Your task to perform on an android device: toggle pop-ups in chrome Image 0: 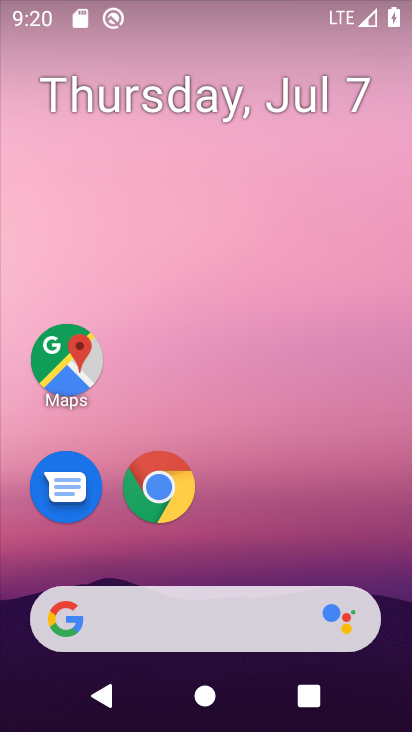
Step 0: drag from (369, 527) to (389, 184)
Your task to perform on an android device: toggle pop-ups in chrome Image 1: 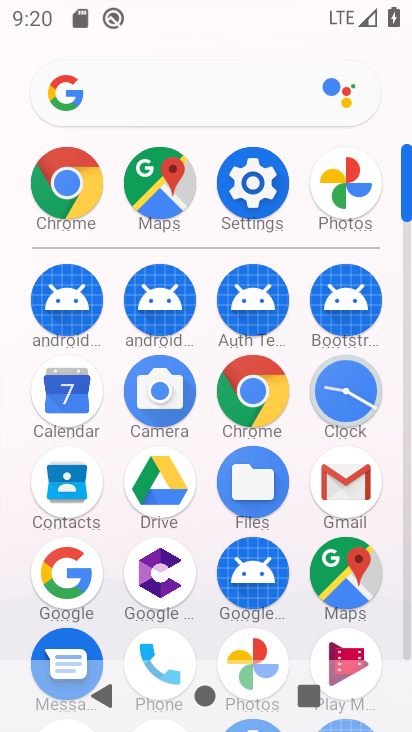
Step 1: click (270, 388)
Your task to perform on an android device: toggle pop-ups in chrome Image 2: 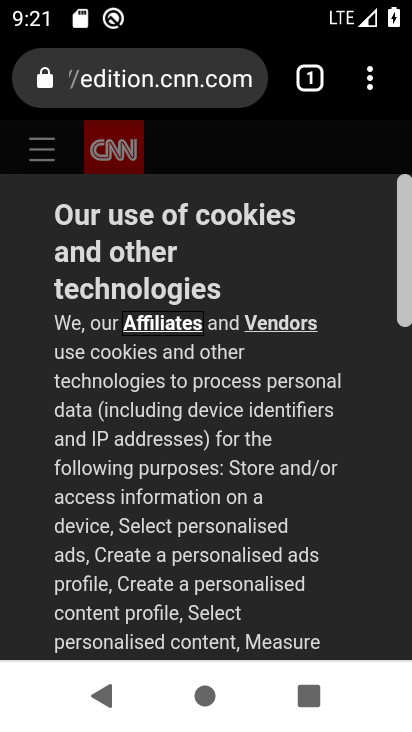
Step 2: click (370, 92)
Your task to perform on an android device: toggle pop-ups in chrome Image 3: 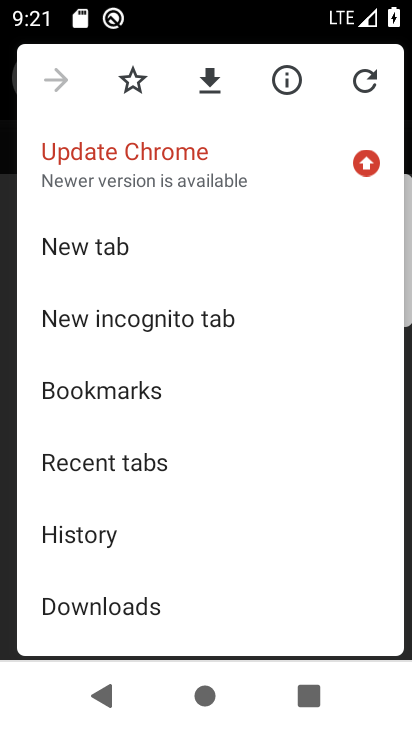
Step 3: drag from (322, 474) to (331, 407)
Your task to perform on an android device: toggle pop-ups in chrome Image 4: 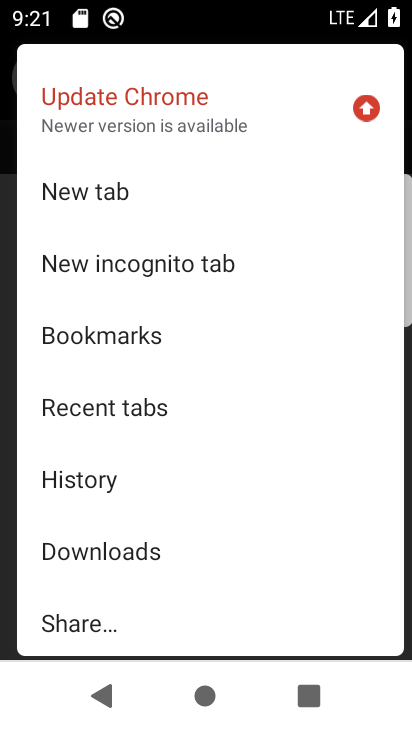
Step 4: drag from (308, 567) to (319, 481)
Your task to perform on an android device: toggle pop-ups in chrome Image 5: 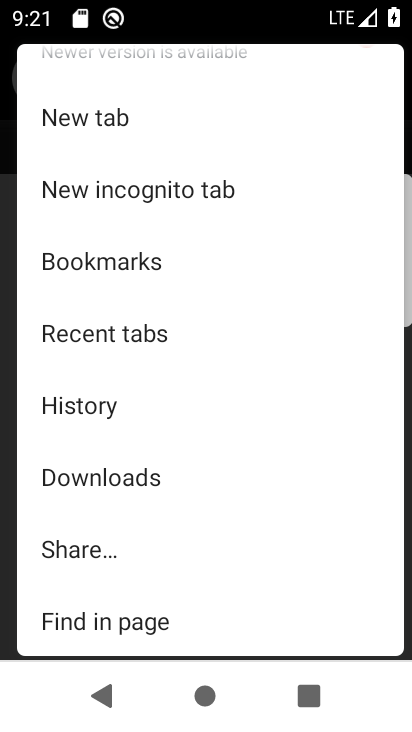
Step 5: drag from (326, 546) to (325, 439)
Your task to perform on an android device: toggle pop-ups in chrome Image 6: 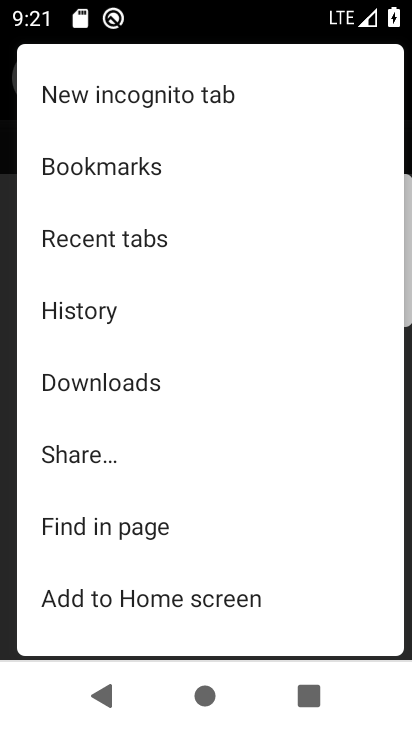
Step 6: drag from (313, 576) to (315, 455)
Your task to perform on an android device: toggle pop-ups in chrome Image 7: 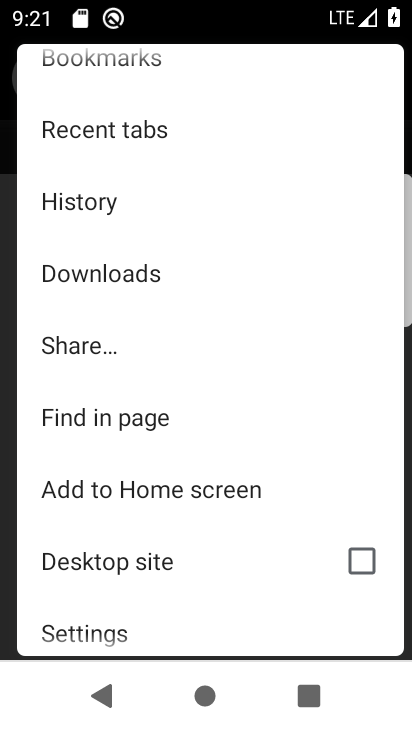
Step 7: drag from (284, 559) to (282, 421)
Your task to perform on an android device: toggle pop-ups in chrome Image 8: 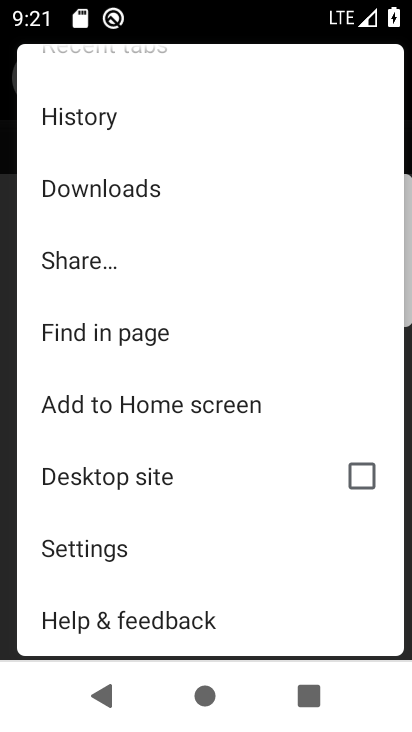
Step 8: click (127, 562)
Your task to perform on an android device: toggle pop-ups in chrome Image 9: 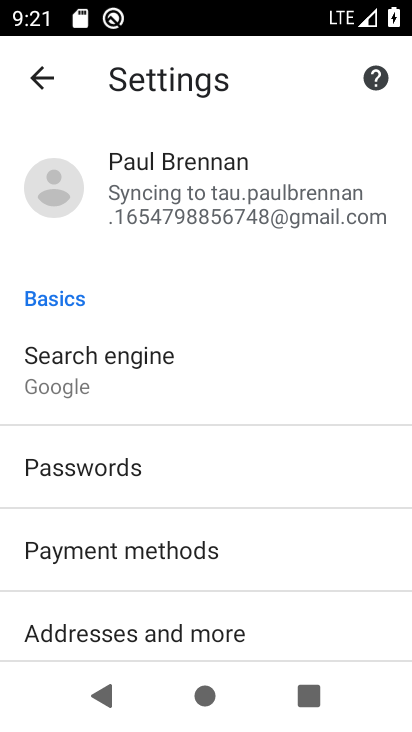
Step 9: drag from (314, 535) to (329, 414)
Your task to perform on an android device: toggle pop-ups in chrome Image 10: 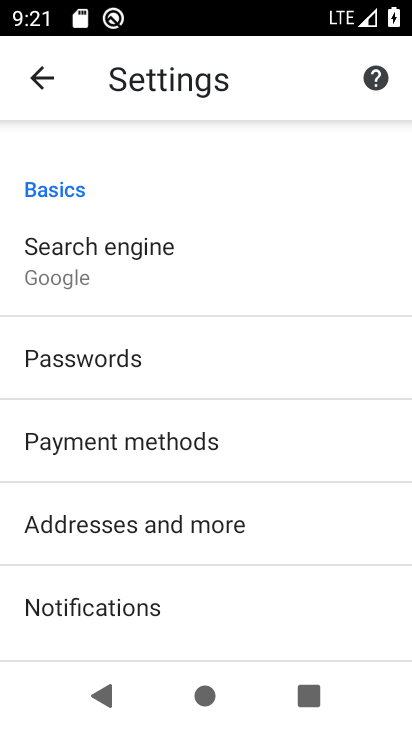
Step 10: drag from (353, 554) to (353, 430)
Your task to perform on an android device: toggle pop-ups in chrome Image 11: 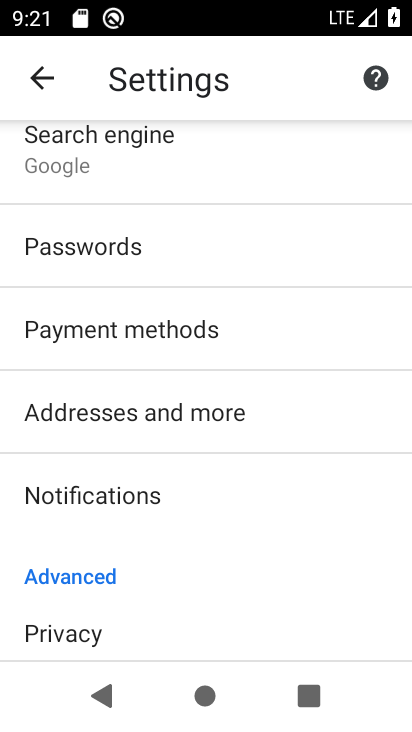
Step 11: drag from (344, 514) to (344, 402)
Your task to perform on an android device: toggle pop-ups in chrome Image 12: 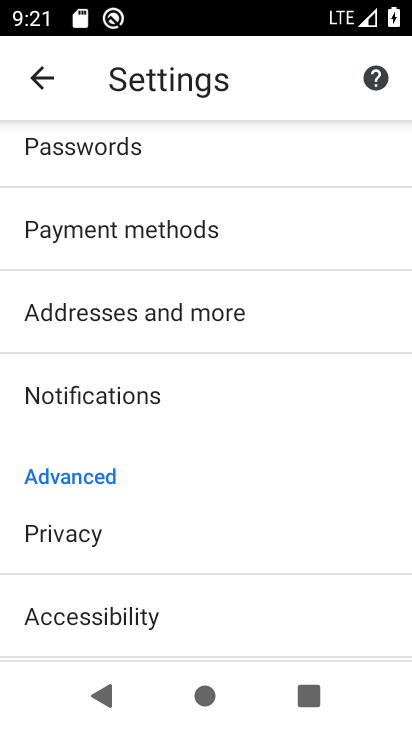
Step 12: drag from (336, 539) to (336, 427)
Your task to perform on an android device: toggle pop-ups in chrome Image 13: 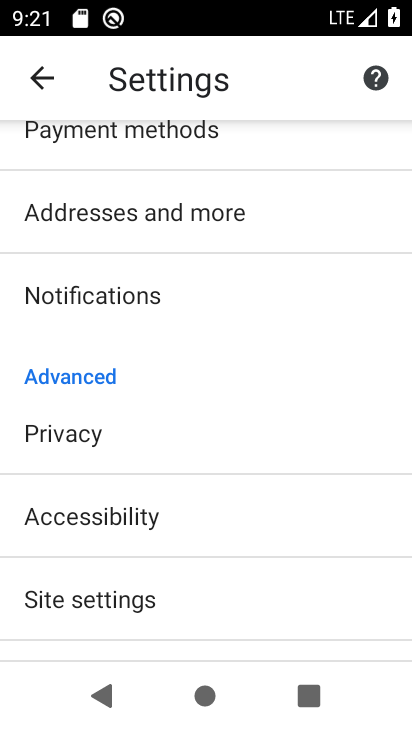
Step 13: drag from (327, 562) to (325, 409)
Your task to perform on an android device: toggle pop-ups in chrome Image 14: 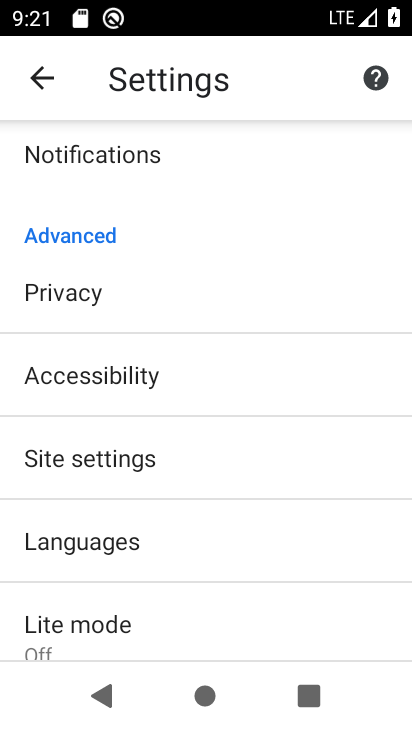
Step 14: click (231, 474)
Your task to perform on an android device: toggle pop-ups in chrome Image 15: 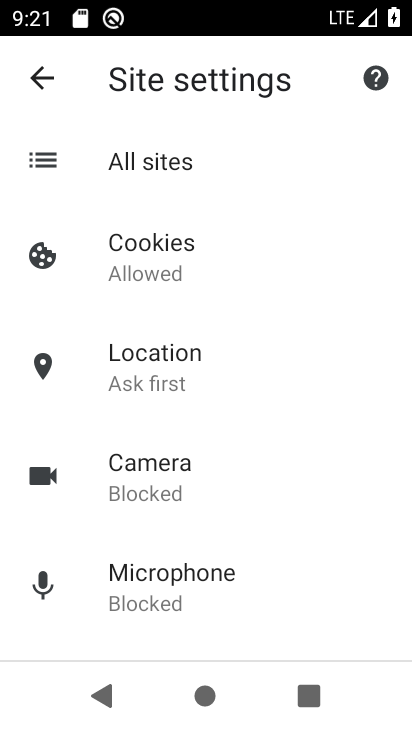
Step 15: drag from (308, 517) to (308, 421)
Your task to perform on an android device: toggle pop-ups in chrome Image 16: 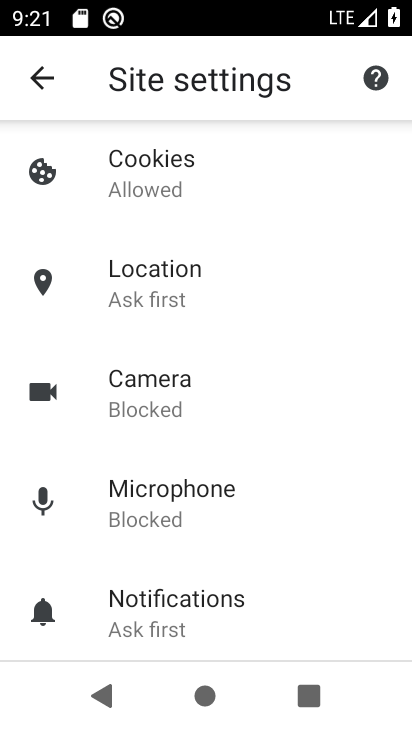
Step 16: drag from (319, 526) to (315, 423)
Your task to perform on an android device: toggle pop-ups in chrome Image 17: 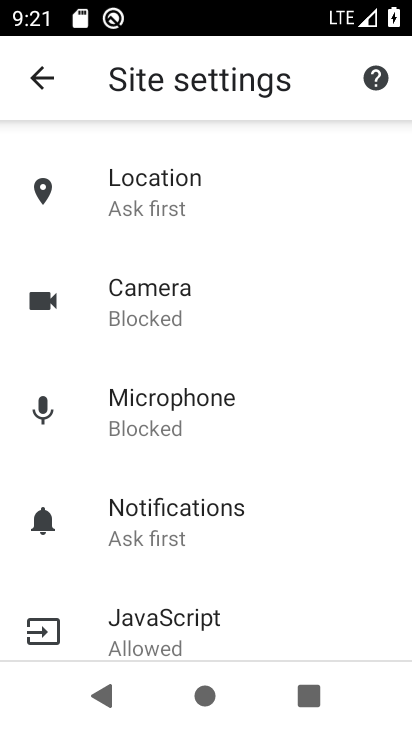
Step 17: drag from (326, 544) to (324, 417)
Your task to perform on an android device: toggle pop-ups in chrome Image 18: 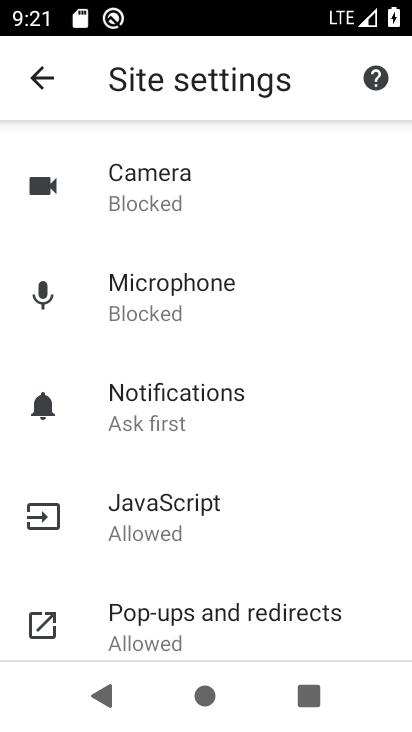
Step 18: drag from (363, 577) to (363, 444)
Your task to perform on an android device: toggle pop-ups in chrome Image 19: 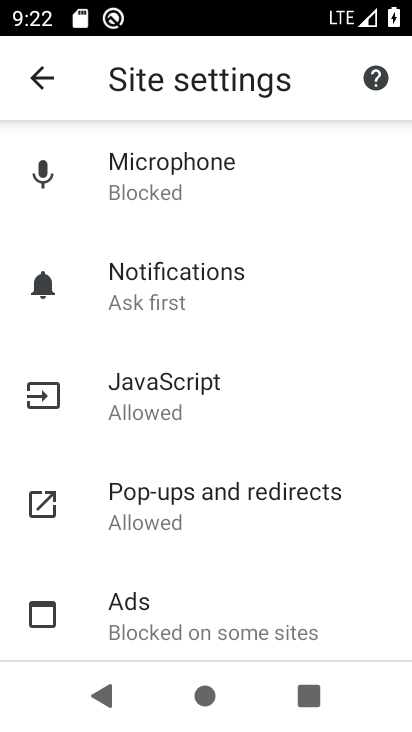
Step 19: click (275, 510)
Your task to perform on an android device: toggle pop-ups in chrome Image 20: 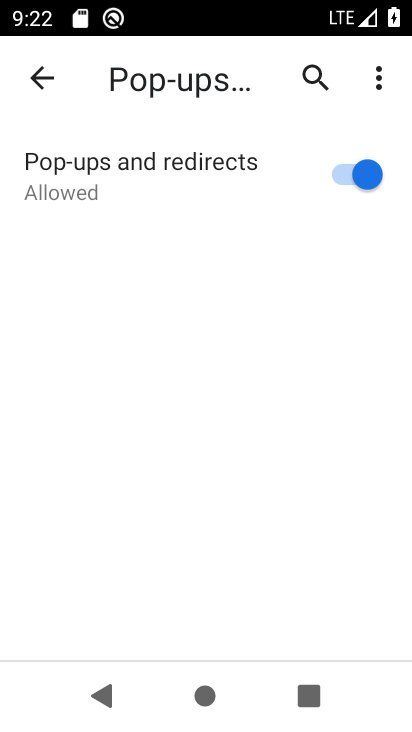
Step 20: click (355, 160)
Your task to perform on an android device: toggle pop-ups in chrome Image 21: 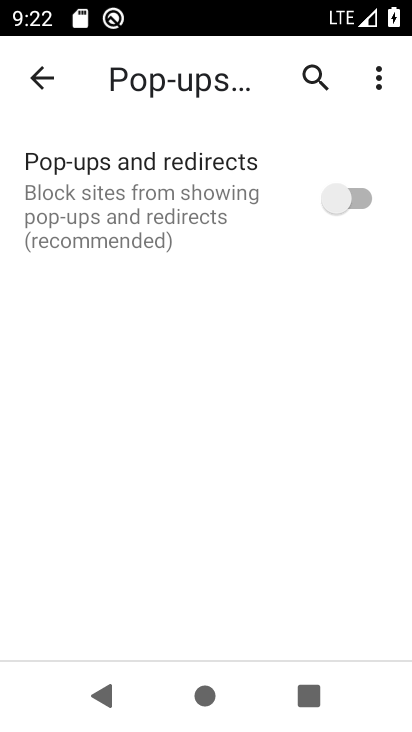
Step 21: task complete